Your task to perform on an android device: Open my contact list Image 0: 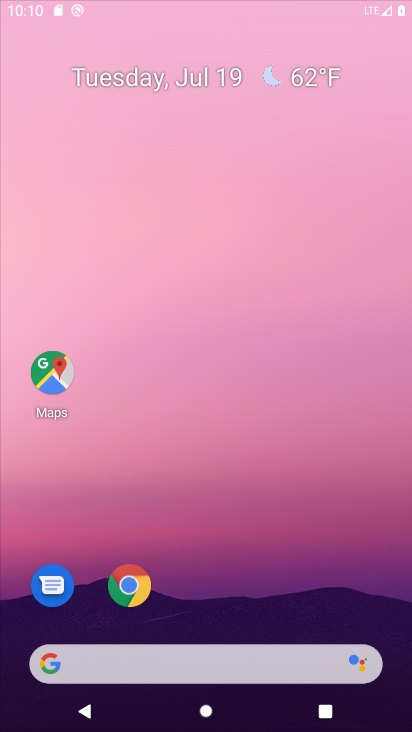
Step 0: press home button
Your task to perform on an android device: Open my contact list Image 1: 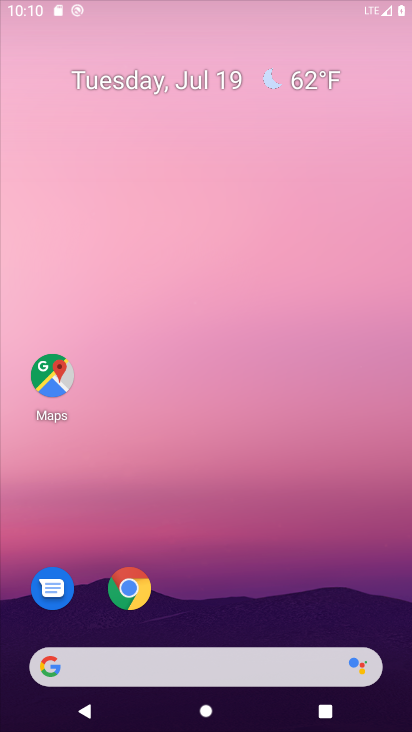
Step 1: drag from (184, 606) to (379, 586)
Your task to perform on an android device: Open my contact list Image 2: 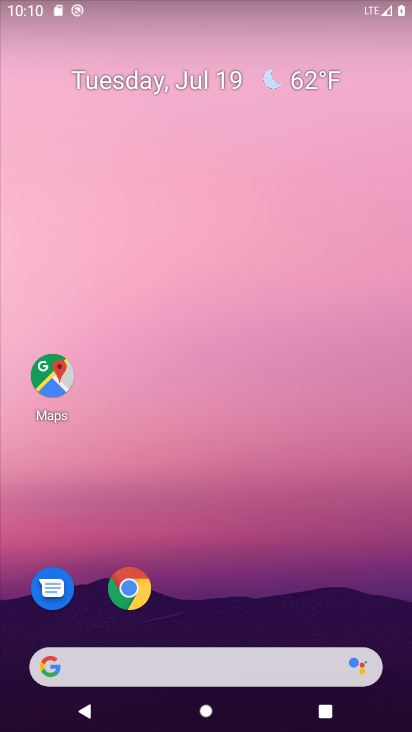
Step 2: drag from (190, 596) to (154, 44)
Your task to perform on an android device: Open my contact list Image 3: 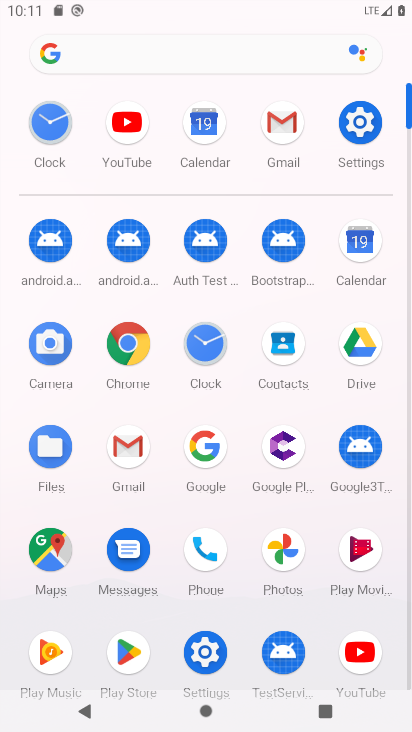
Step 3: click (280, 371)
Your task to perform on an android device: Open my contact list Image 4: 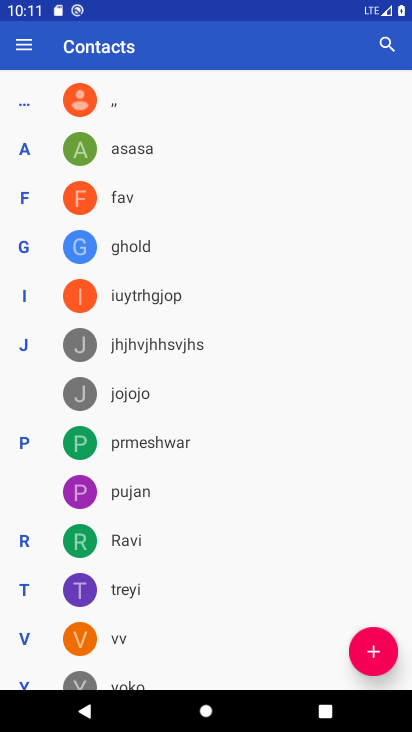
Step 4: task complete